Your task to perform on an android device: check android version Image 0: 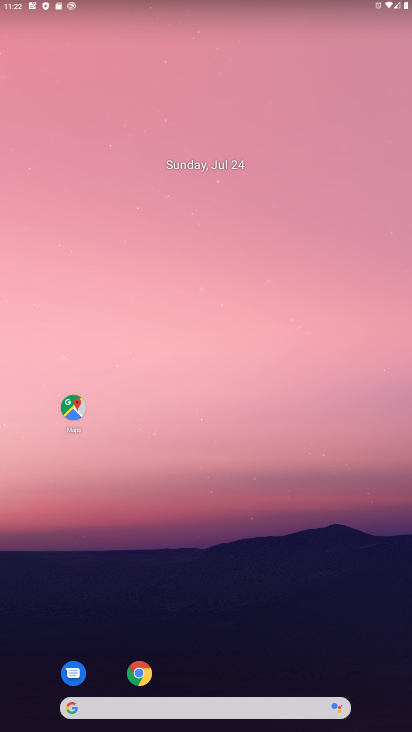
Step 0: drag from (310, 614) to (172, 50)
Your task to perform on an android device: check android version Image 1: 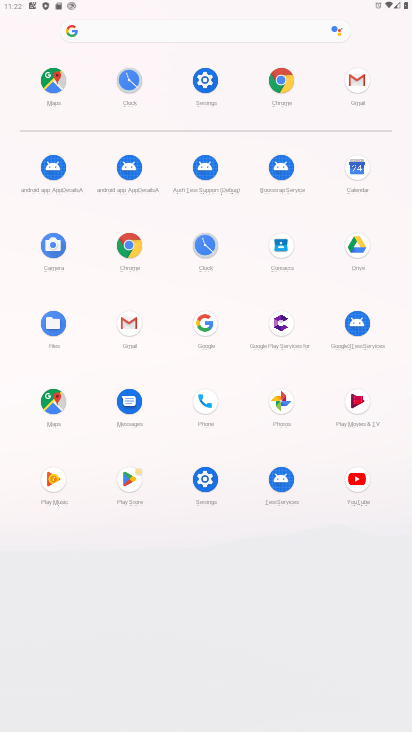
Step 1: click (215, 79)
Your task to perform on an android device: check android version Image 2: 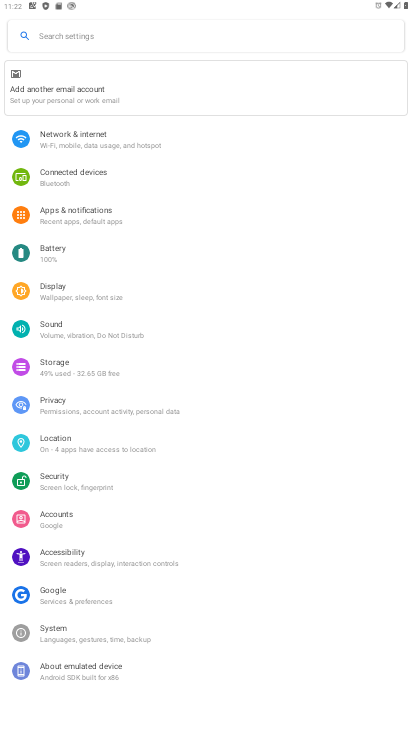
Step 2: drag from (112, 634) to (112, 294)
Your task to perform on an android device: check android version Image 3: 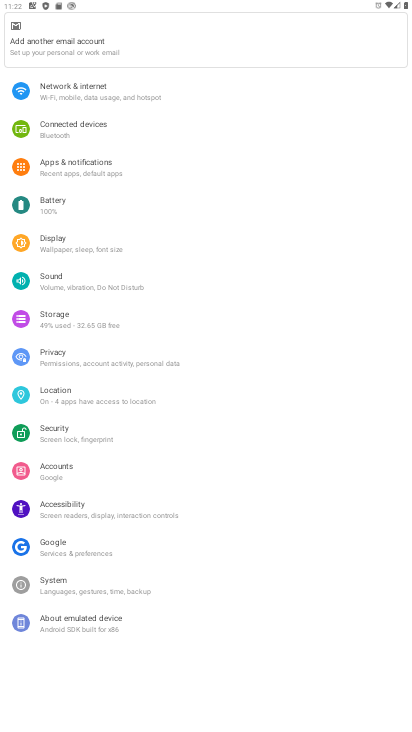
Step 3: click (97, 637)
Your task to perform on an android device: check android version Image 4: 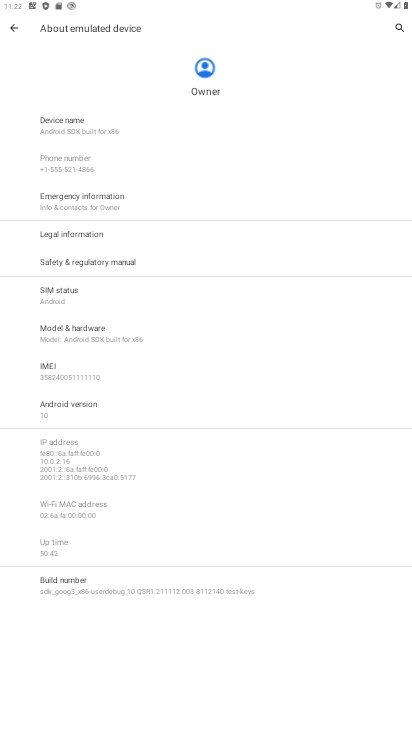
Step 4: click (99, 404)
Your task to perform on an android device: check android version Image 5: 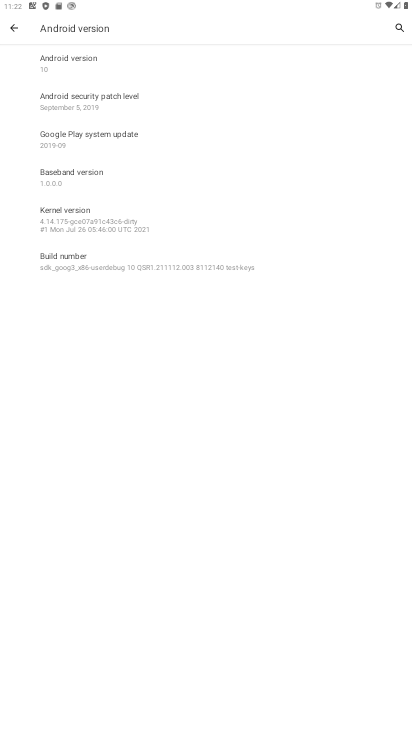
Step 5: task complete